Your task to perform on an android device: Show me productivity apps on the Play Store Image 0: 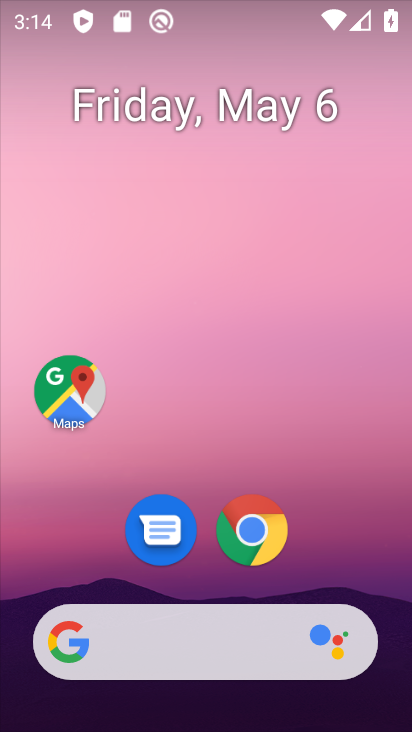
Step 0: drag from (241, 640) to (314, 172)
Your task to perform on an android device: Show me productivity apps on the Play Store Image 1: 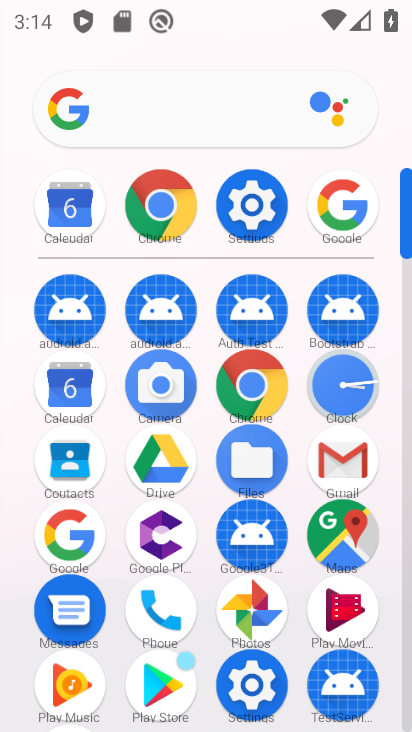
Step 1: drag from (264, 628) to (313, 316)
Your task to perform on an android device: Show me productivity apps on the Play Store Image 2: 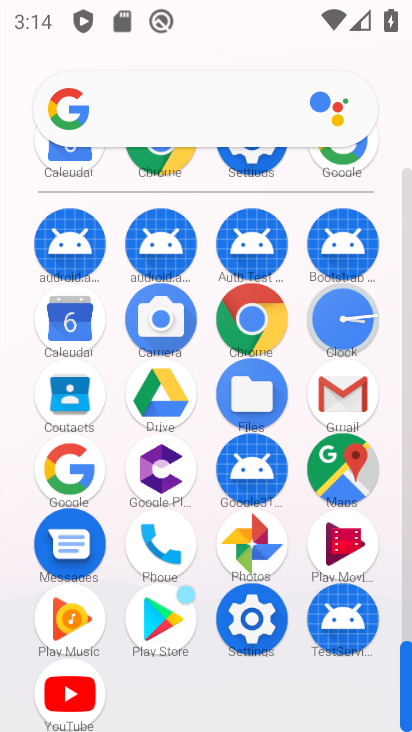
Step 2: click (172, 621)
Your task to perform on an android device: Show me productivity apps on the Play Store Image 3: 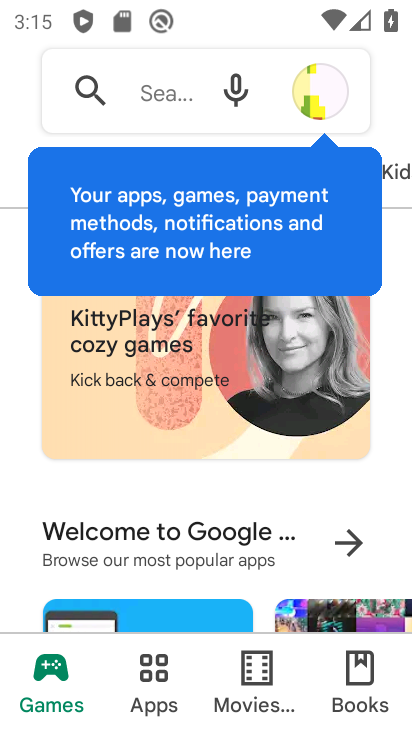
Step 3: click (156, 104)
Your task to perform on an android device: Show me productivity apps on the Play Store Image 4: 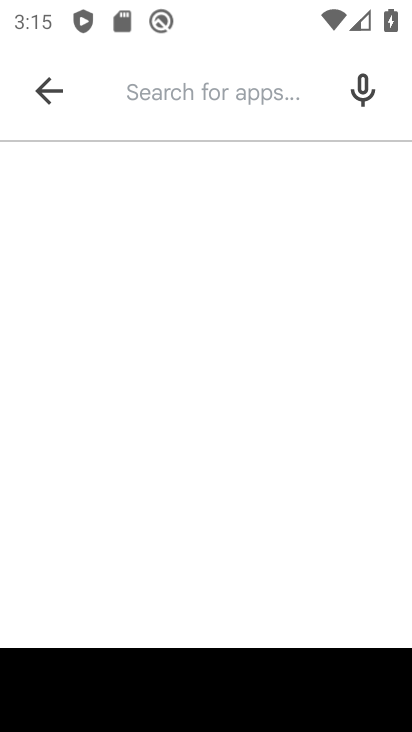
Step 4: type "productivity aaps"
Your task to perform on an android device: Show me productivity apps on the Play Store Image 5: 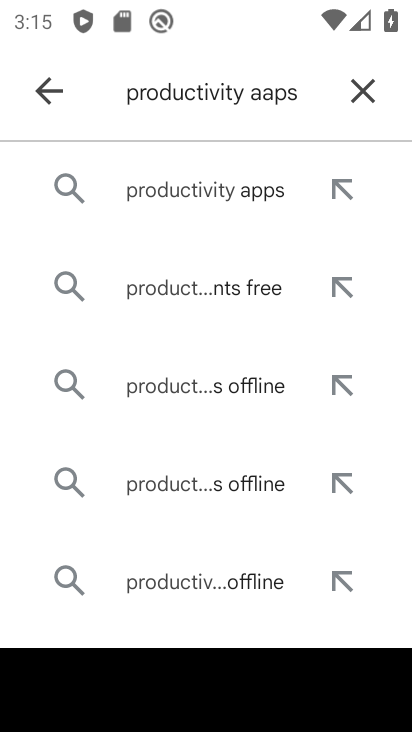
Step 5: click (260, 196)
Your task to perform on an android device: Show me productivity apps on the Play Store Image 6: 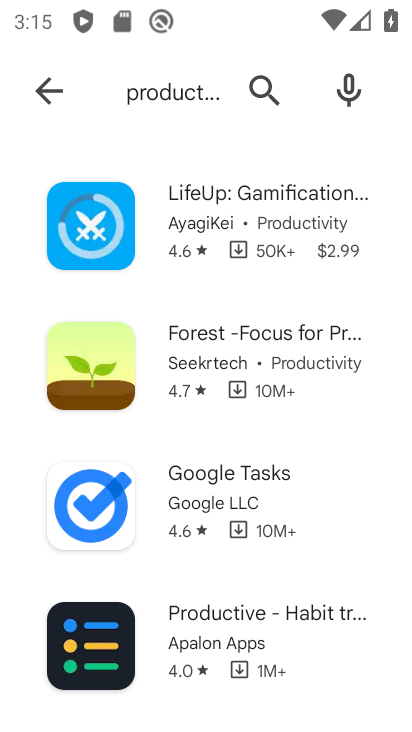
Step 6: click (260, 196)
Your task to perform on an android device: Show me productivity apps on the Play Store Image 7: 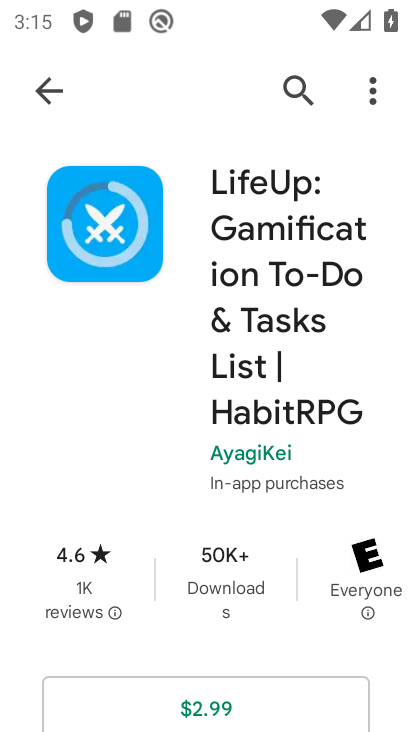
Step 7: task complete